Your task to perform on an android device: Do I have any events today? Image 0: 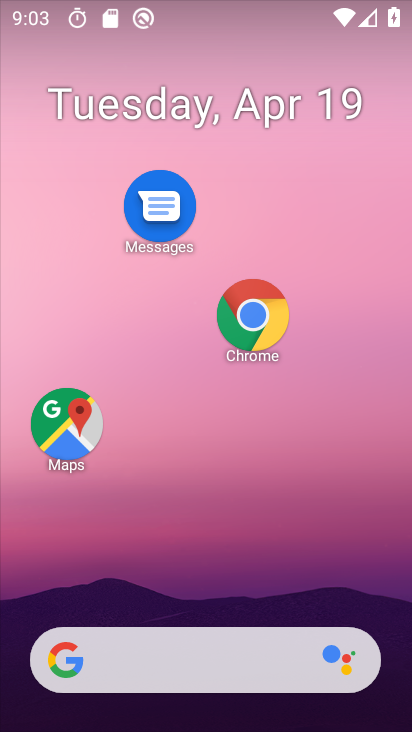
Step 0: drag from (209, 662) to (140, 83)
Your task to perform on an android device: Do I have any events today? Image 1: 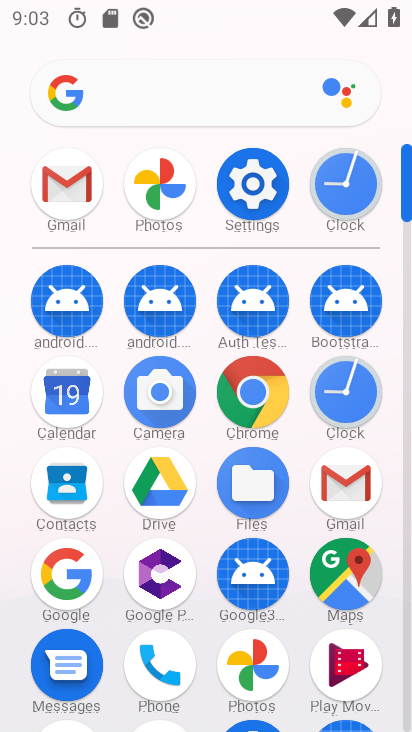
Step 1: click (79, 383)
Your task to perform on an android device: Do I have any events today? Image 2: 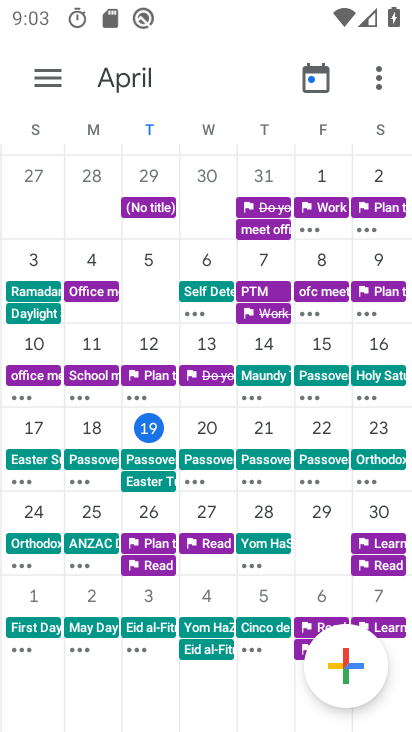
Step 2: click (44, 88)
Your task to perform on an android device: Do I have any events today? Image 3: 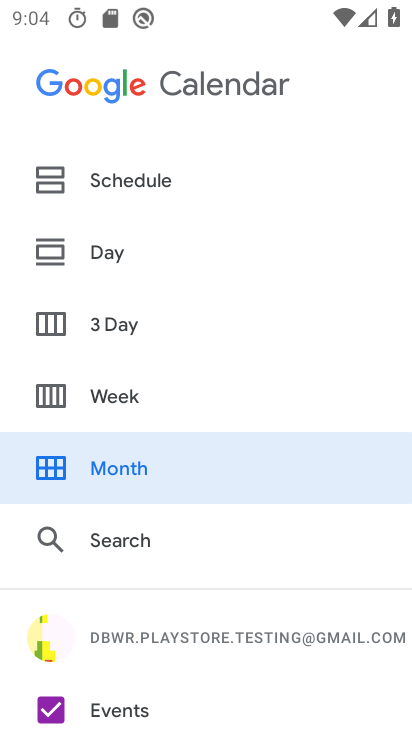
Step 3: click (110, 240)
Your task to perform on an android device: Do I have any events today? Image 4: 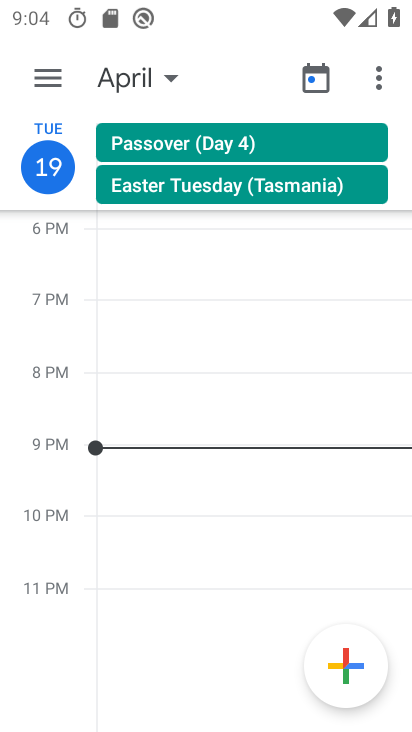
Step 4: task complete